Your task to perform on an android device: check android version Image 0: 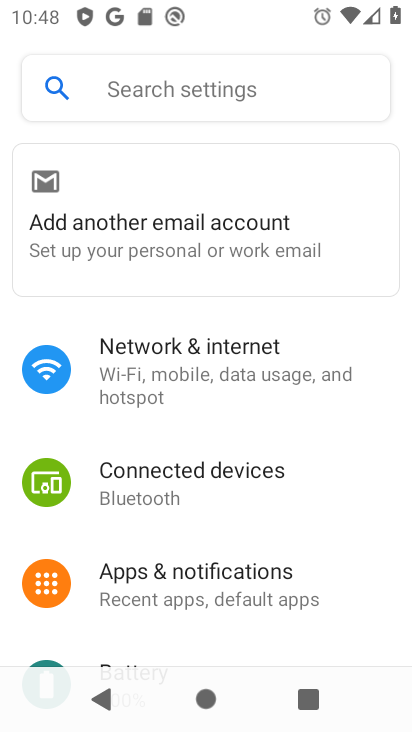
Step 0: drag from (277, 510) to (208, 242)
Your task to perform on an android device: check android version Image 1: 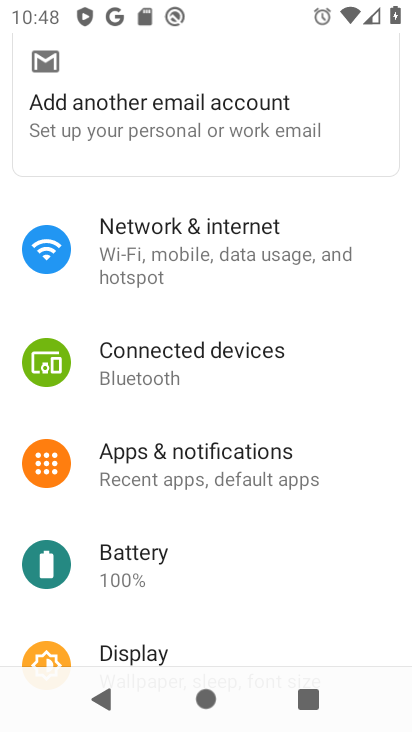
Step 1: drag from (250, 552) to (133, 168)
Your task to perform on an android device: check android version Image 2: 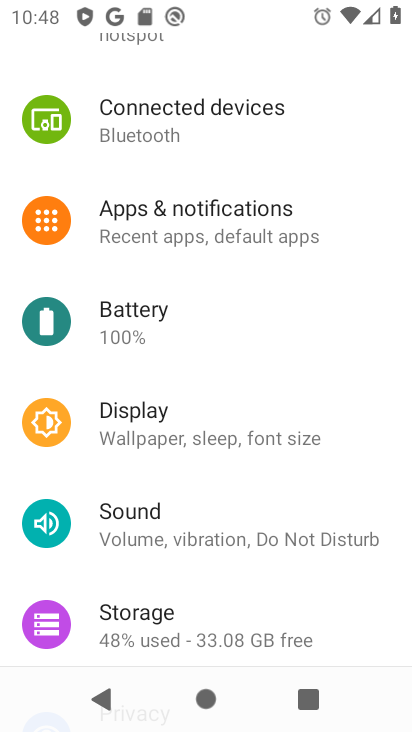
Step 2: drag from (230, 600) to (184, 246)
Your task to perform on an android device: check android version Image 3: 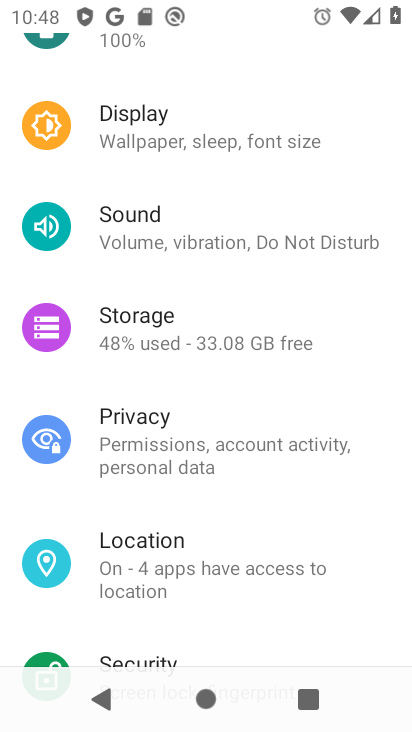
Step 3: drag from (259, 541) to (247, 193)
Your task to perform on an android device: check android version Image 4: 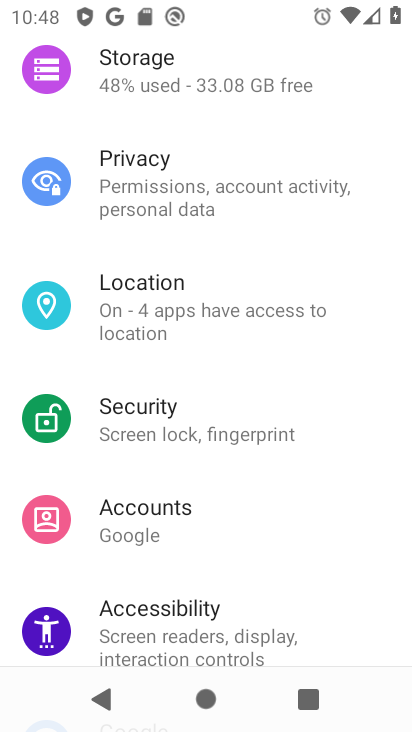
Step 4: drag from (255, 535) to (233, 328)
Your task to perform on an android device: check android version Image 5: 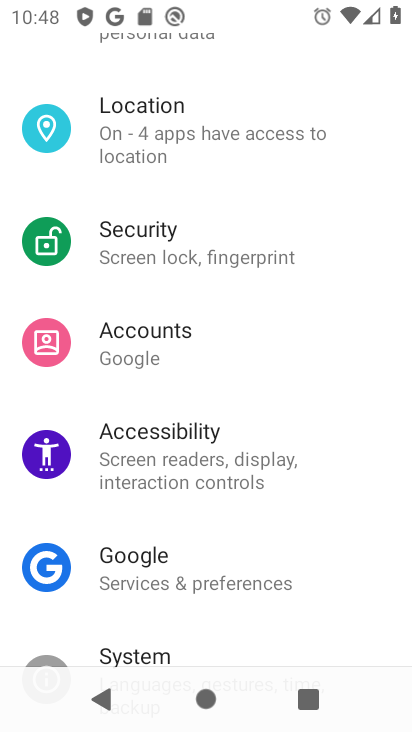
Step 5: drag from (248, 630) to (246, 45)
Your task to perform on an android device: check android version Image 6: 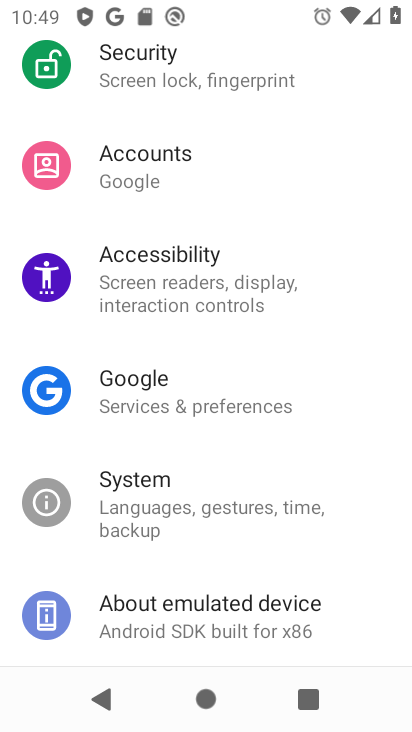
Step 6: click (240, 603)
Your task to perform on an android device: check android version Image 7: 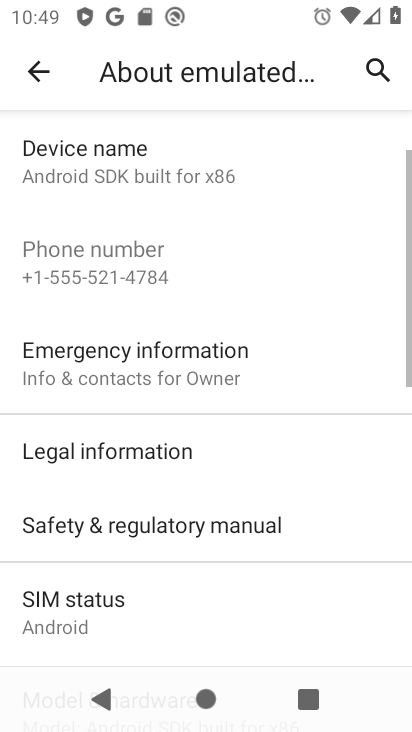
Step 7: drag from (265, 562) to (260, 176)
Your task to perform on an android device: check android version Image 8: 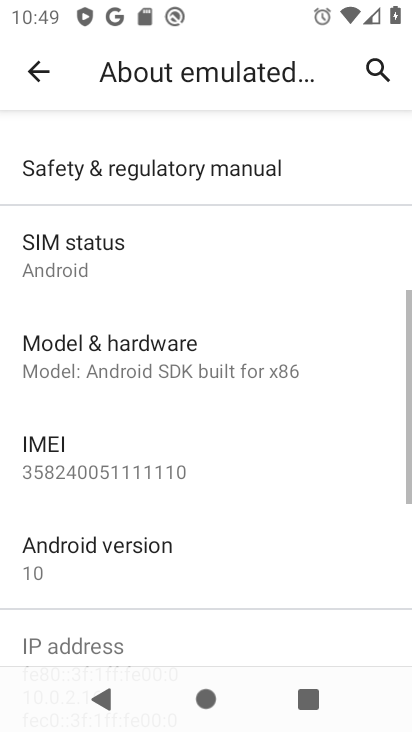
Step 8: click (162, 570)
Your task to perform on an android device: check android version Image 9: 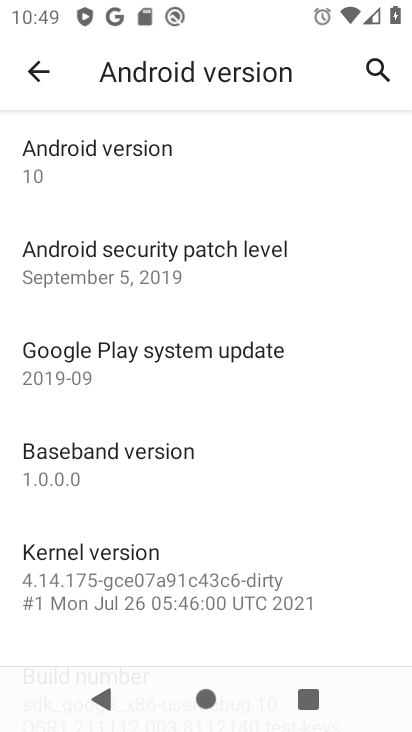
Step 9: task complete